Your task to perform on an android device: Is it going to rain tomorrow? Image 0: 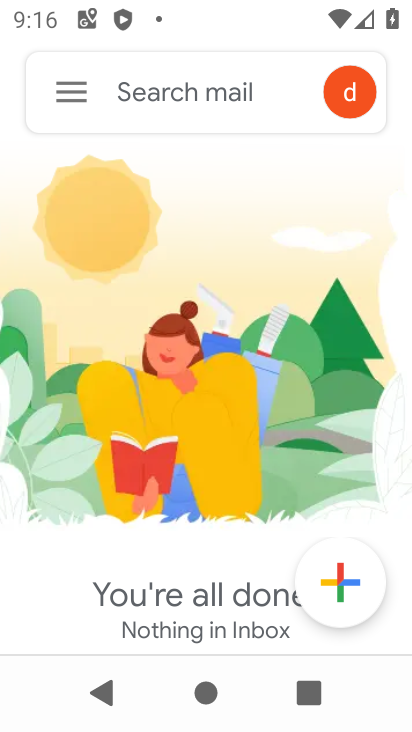
Step 0: press home button
Your task to perform on an android device: Is it going to rain tomorrow? Image 1: 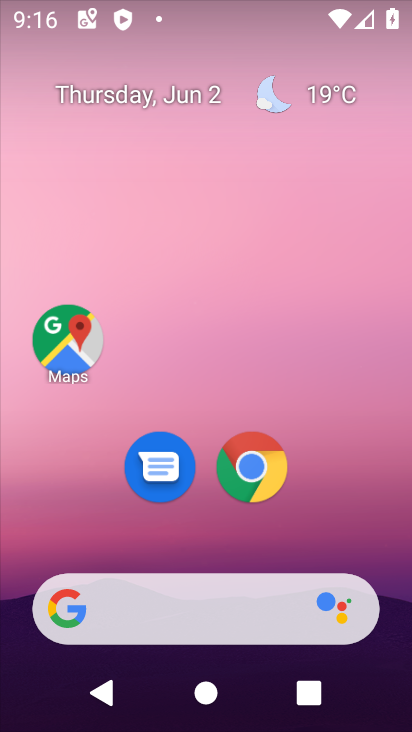
Step 1: drag from (220, 550) to (141, 51)
Your task to perform on an android device: Is it going to rain tomorrow? Image 2: 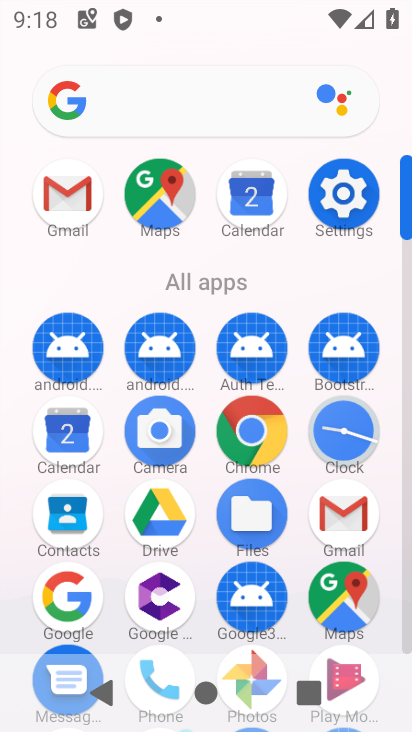
Step 2: drag from (233, 632) to (249, 132)
Your task to perform on an android device: Is it going to rain tomorrow? Image 3: 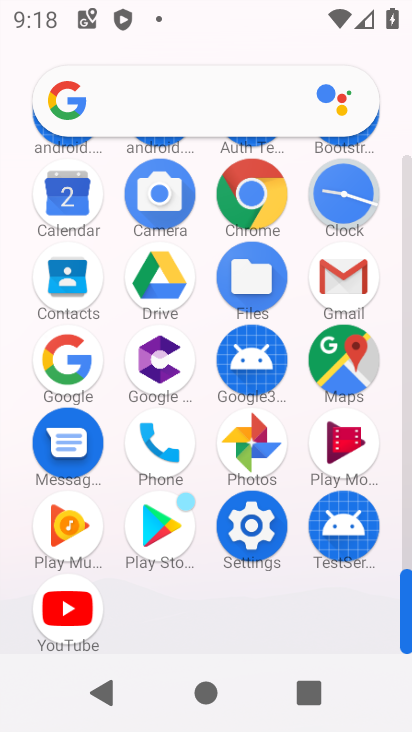
Step 3: drag from (119, 250) to (106, 535)
Your task to perform on an android device: Is it going to rain tomorrow? Image 4: 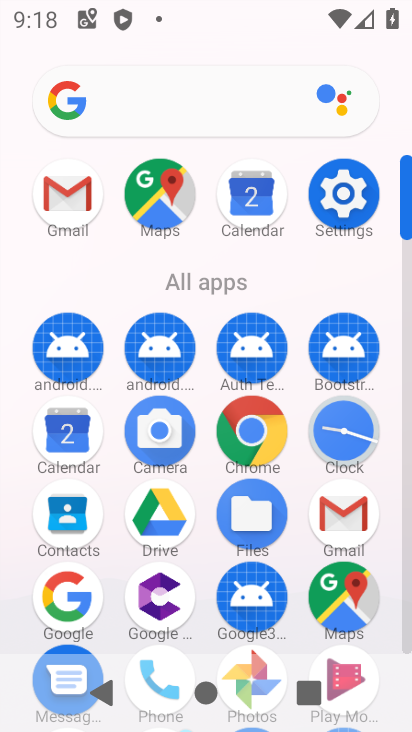
Step 4: drag from (229, 548) to (228, 360)
Your task to perform on an android device: Is it going to rain tomorrow? Image 5: 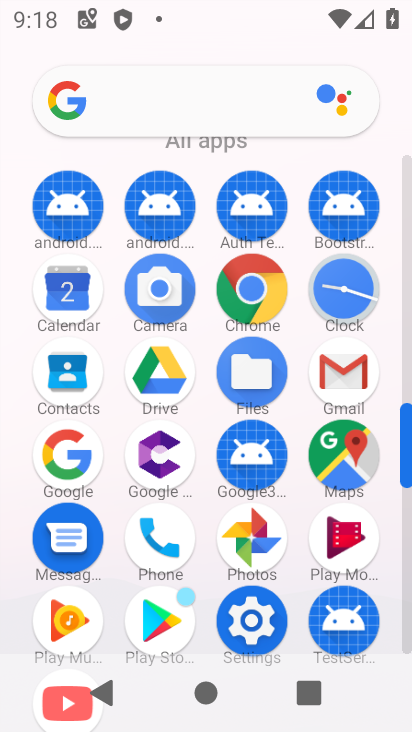
Step 5: drag from (278, 297) to (256, 624)
Your task to perform on an android device: Is it going to rain tomorrow? Image 6: 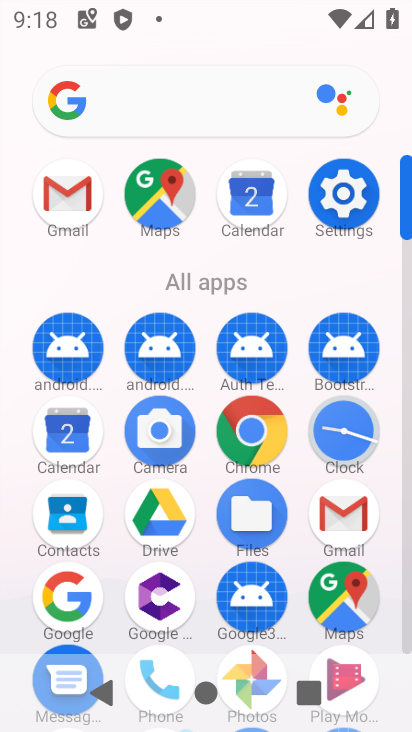
Step 6: click (57, 604)
Your task to perform on an android device: Is it going to rain tomorrow? Image 7: 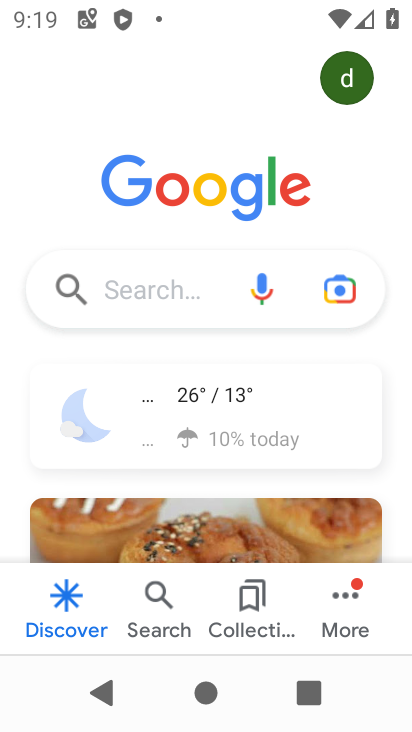
Step 7: click (136, 298)
Your task to perform on an android device: Is it going to rain tomorrow? Image 8: 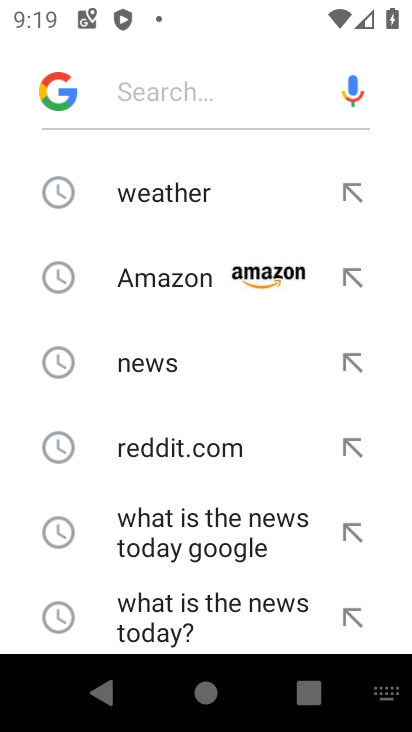
Step 8: click (165, 192)
Your task to perform on an android device: Is it going to rain tomorrow? Image 9: 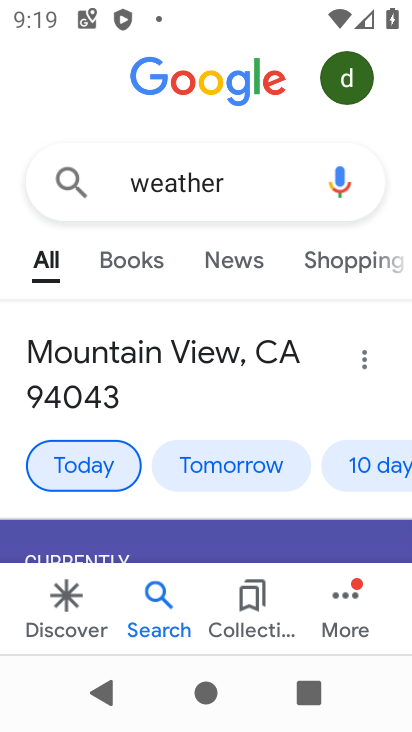
Step 9: task complete